Your task to perform on an android device: What's the price of the LG TV? Image 0: 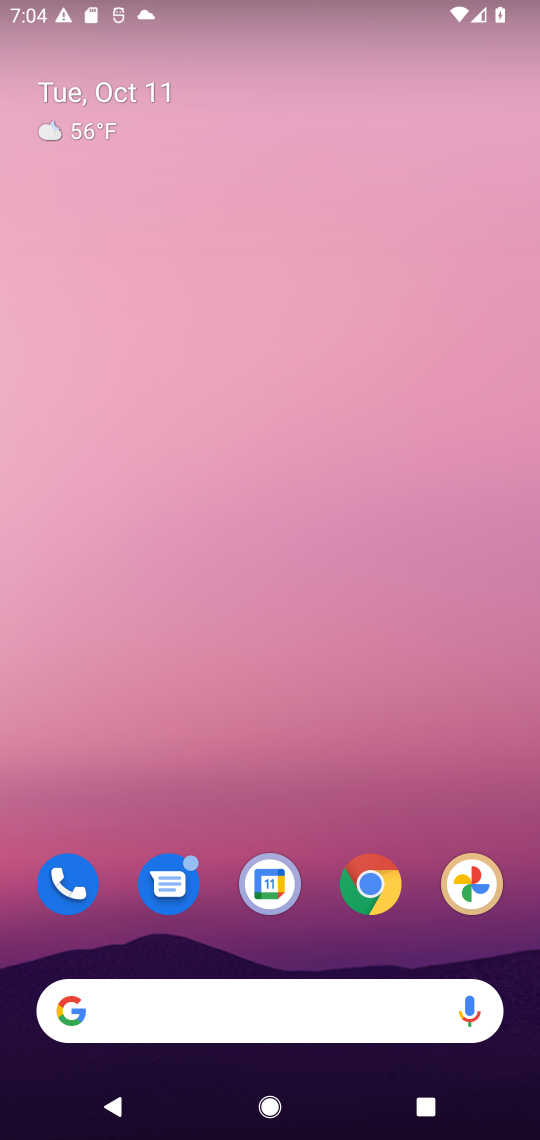
Step 0: drag from (327, 968) to (200, 170)
Your task to perform on an android device: What's the price of the LG TV? Image 1: 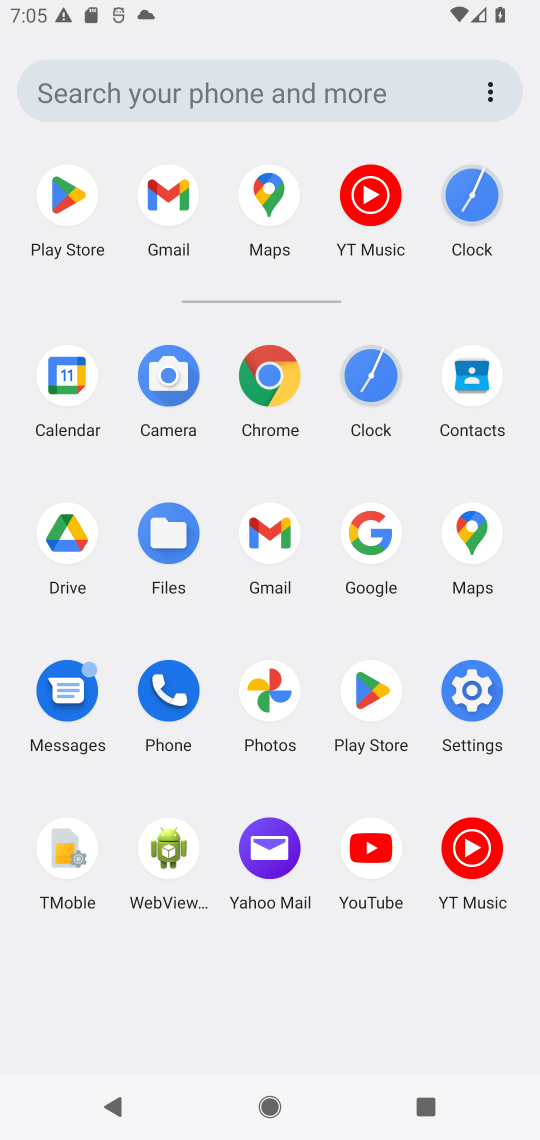
Step 1: click (374, 541)
Your task to perform on an android device: What's the price of the LG TV? Image 2: 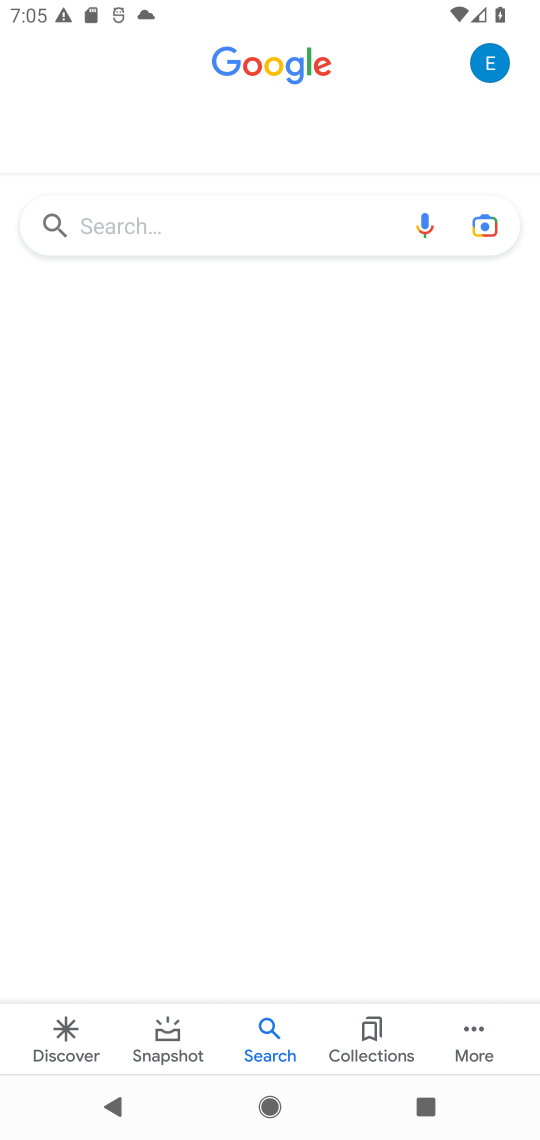
Step 2: click (280, 231)
Your task to perform on an android device: What's the price of the LG TV? Image 3: 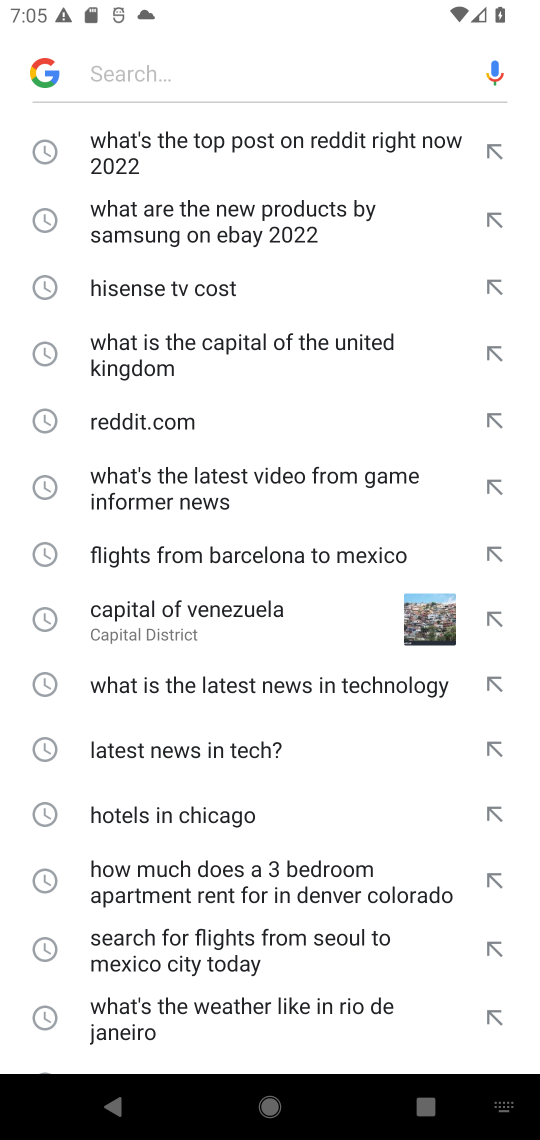
Step 3: type "What's the price of the LG TV?"
Your task to perform on an android device: What's the price of the LG TV? Image 4: 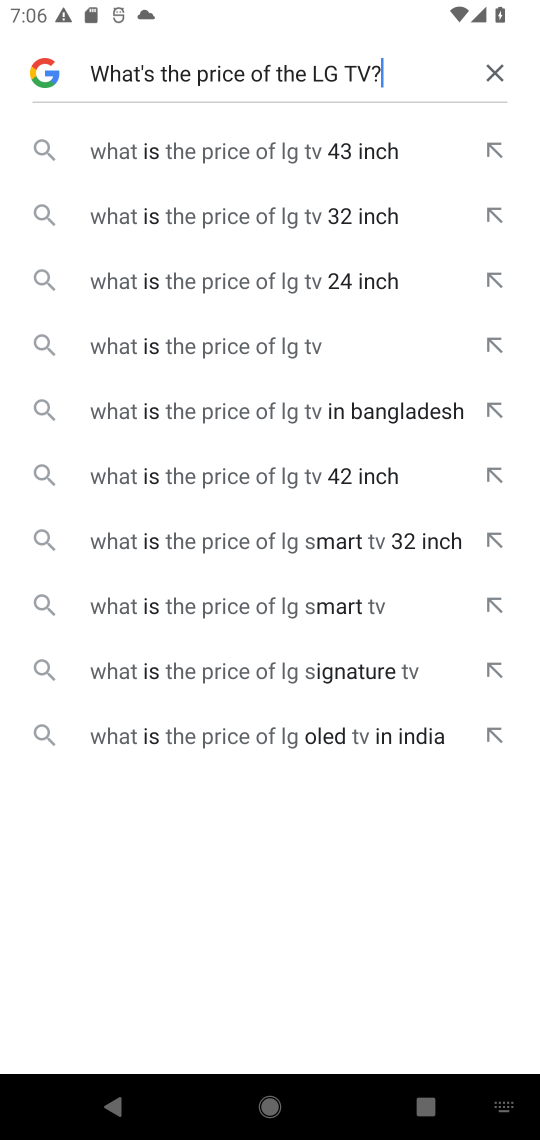
Step 4: click (213, 340)
Your task to perform on an android device: What's the price of the LG TV? Image 5: 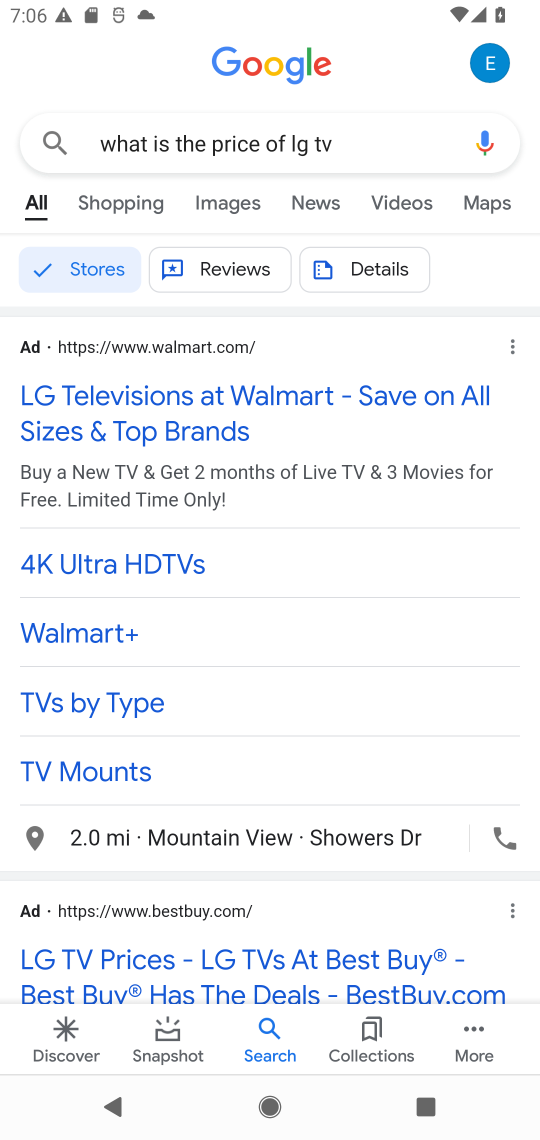
Step 5: drag from (190, 817) to (200, 378)
Your task to perform on an android device: What's the price of the LG TV? Image 6: 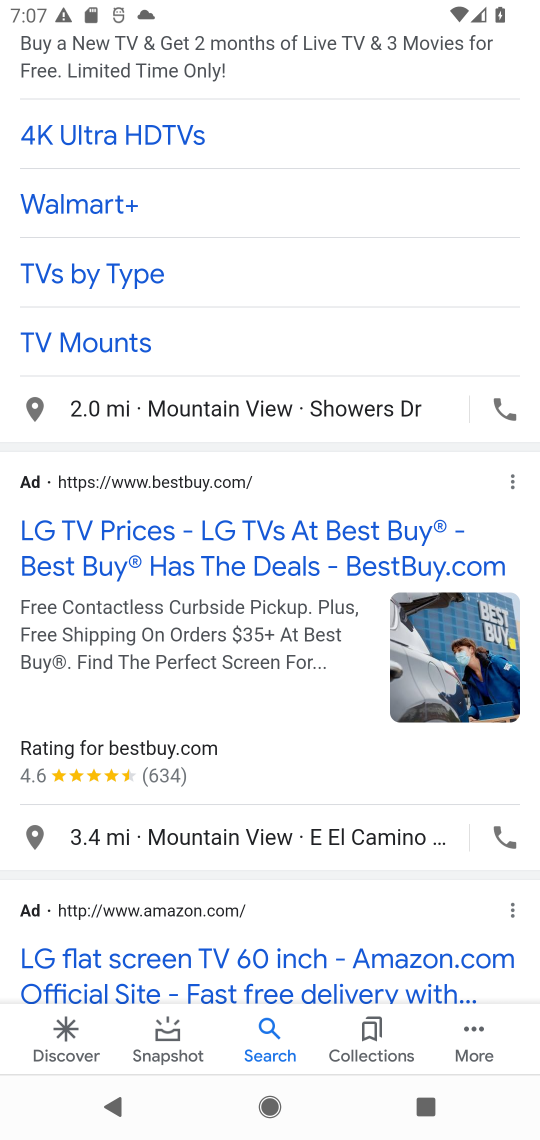
Step 6: click (263, 559)
Your task to perform on an android device: What's the price of the LG TV? Image 7: 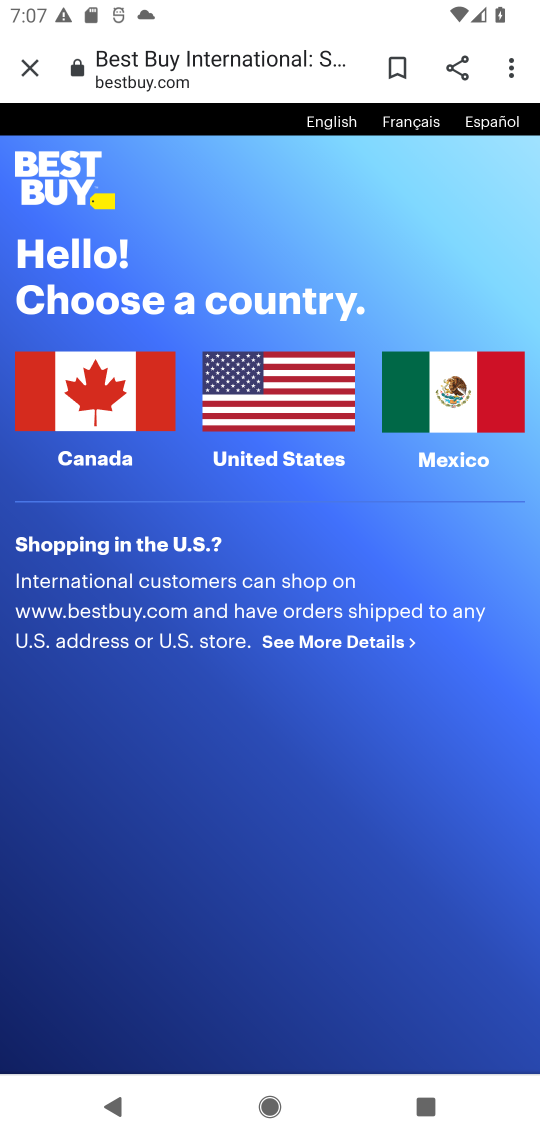
Step 7: drag from (267, 618) to (242, 222)
Your task to perform on an android device: What's the price of the LG TV? Image 8: 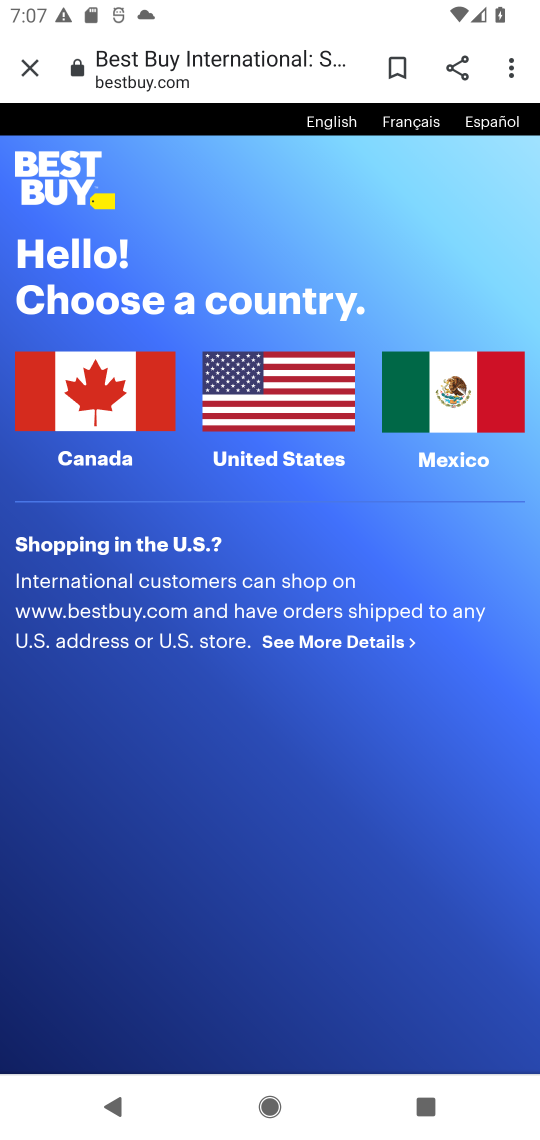
Step 8: click (293, 404)
Your task to perform on an android device: What's the price of the LG TV? Image 9: 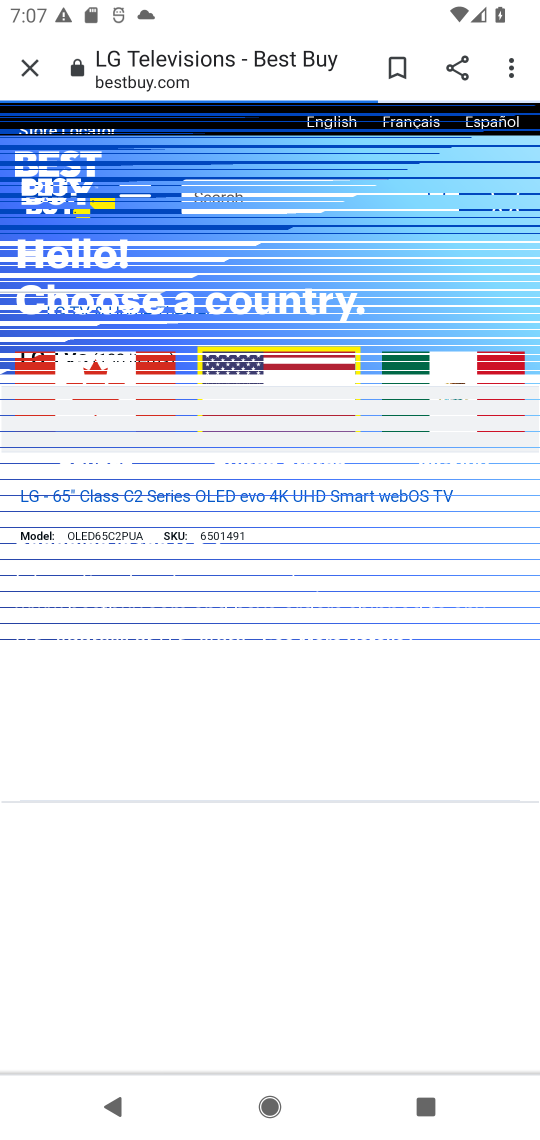
Step 9: click (290, 401)
Your task to perform on an android device: What's the price of the LG TV? Image 10: 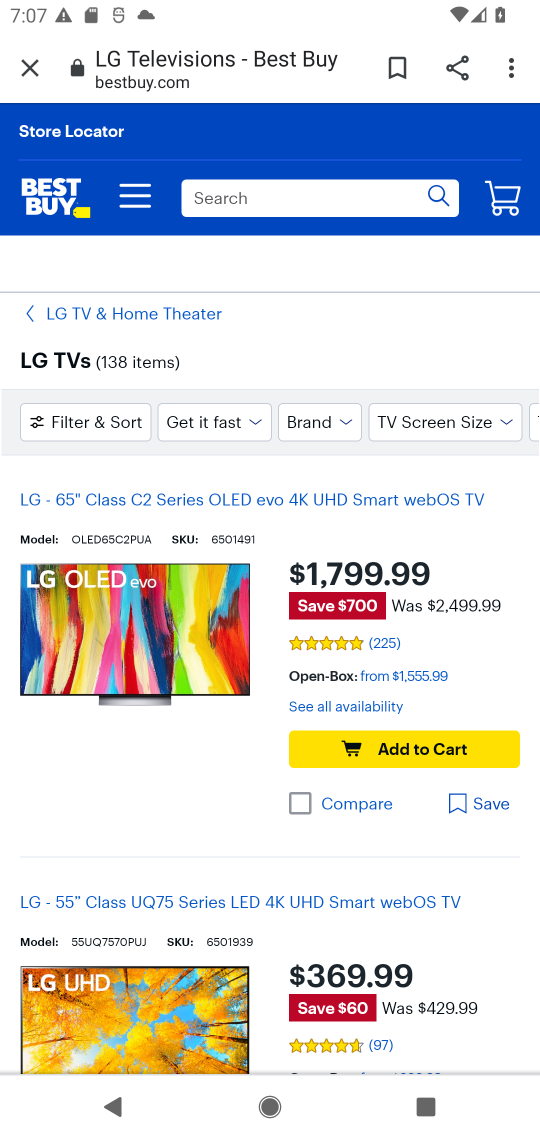
Step 10: task complete